Your task to perform on an android device: change the clock display to digital Image 0: 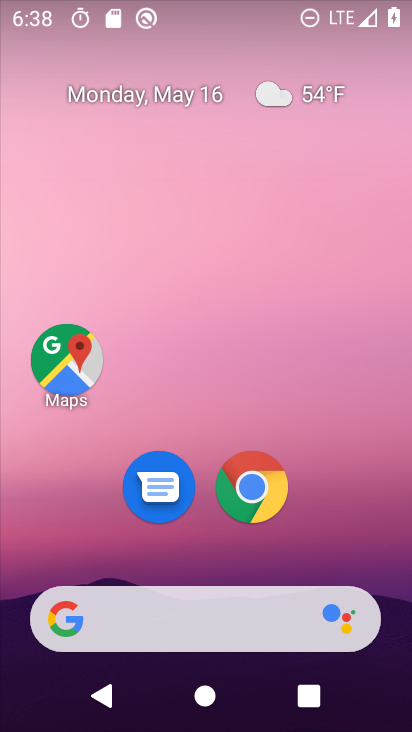
Step 0: drag from (192, 587) to (192, 232)
Your task to perform on an android device: change the clock display to digital Image 1: 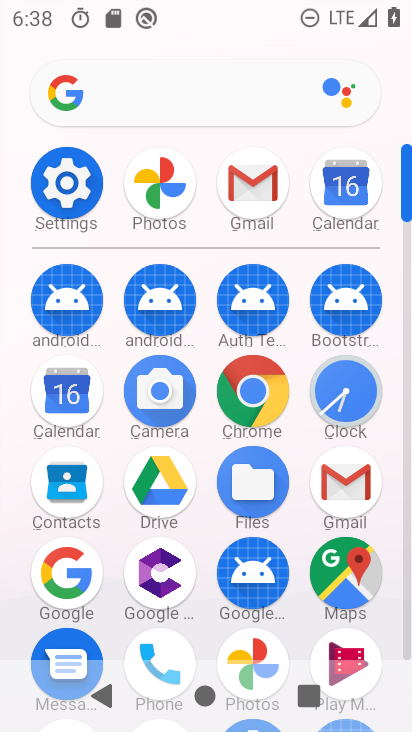
Step 1: click (335, 408)
Your task to perform on an android device: change the clock display to digital Image 2: 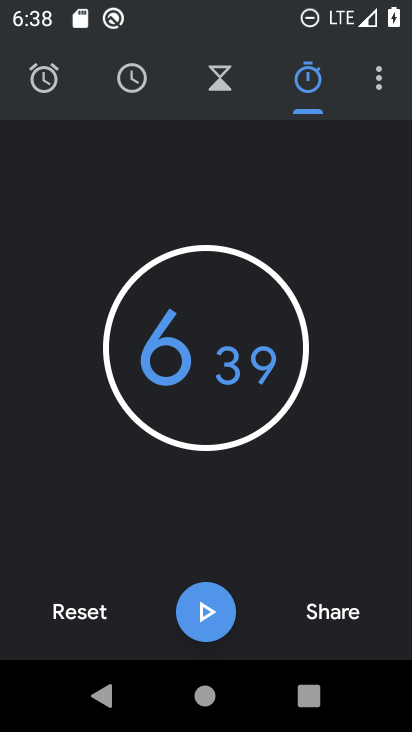
Step 2: click (382, 86)
Your task to perform on an android device: change the clock display to digital Image 3: 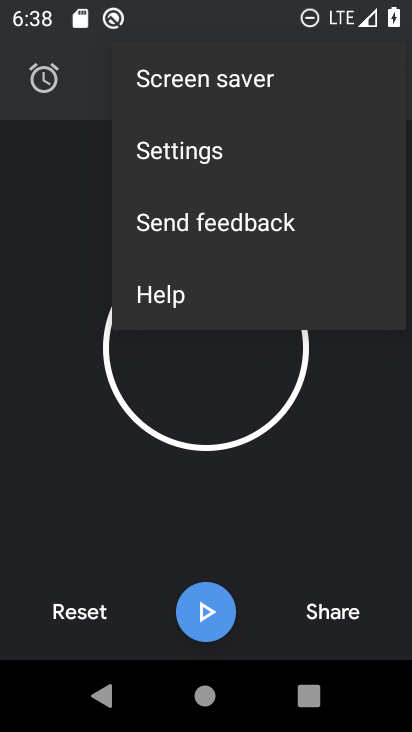
Step 3: click (205, 146)
Your task to perform on an android device: change the clock display to digital Image 4: 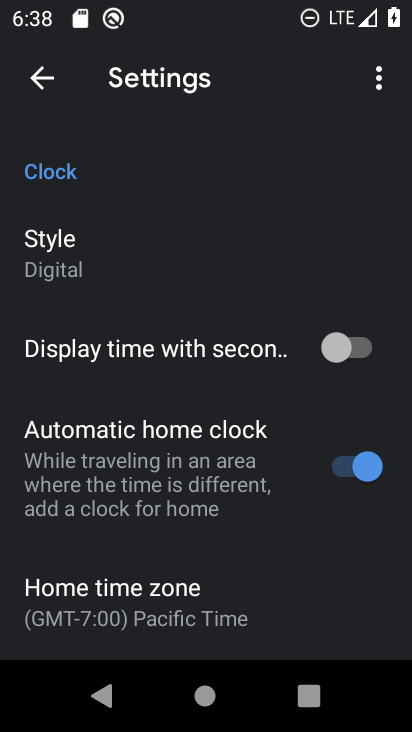
Step 4: click (90, 251)
Your task to perform on an android device: change the clock display to digital Image 5: 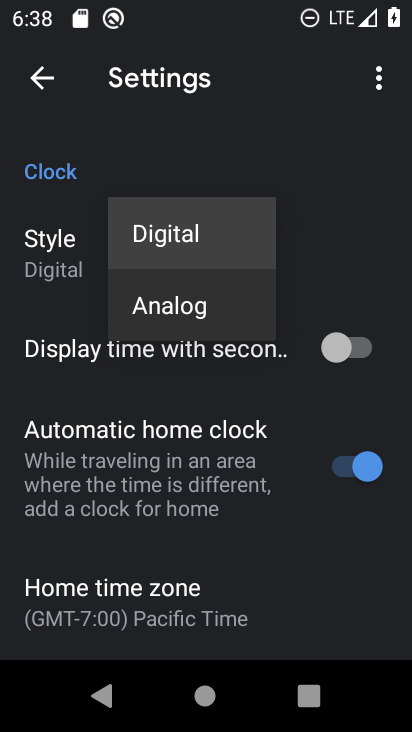
Step 5: task complete